Your task to perform on an android device: turn pop-ups on in chrome Image 0: 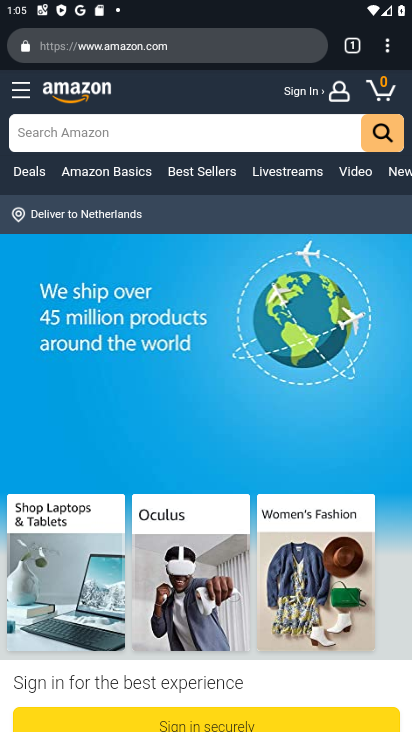
Step 0: click (386, 47)
Your task to perform on an android device: turn pop-ups on in chrome Image 1: 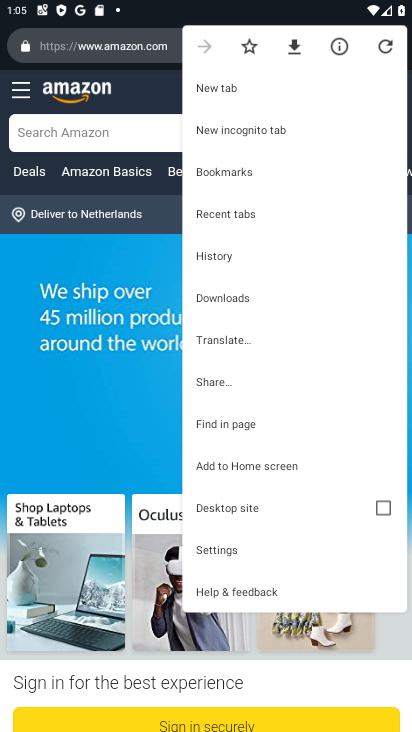
Step 1: click (213, 546)
Your task to perform on an android device: turn pop-ups on in chrome Image 2: 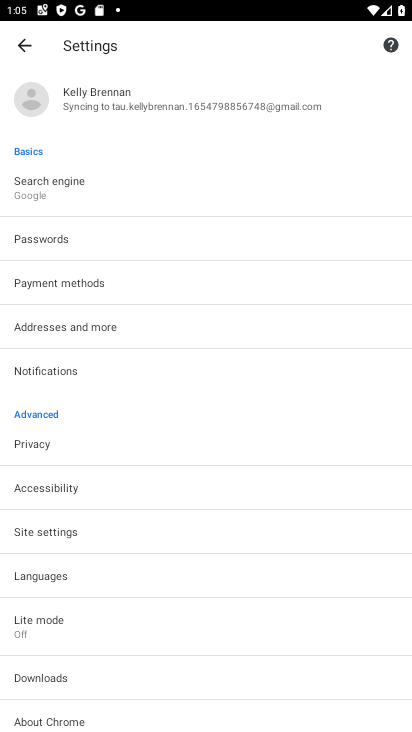
Step 2: click (58, 536)
Your task to perform on an android device: turn pop-ups on in chrome Image 3: 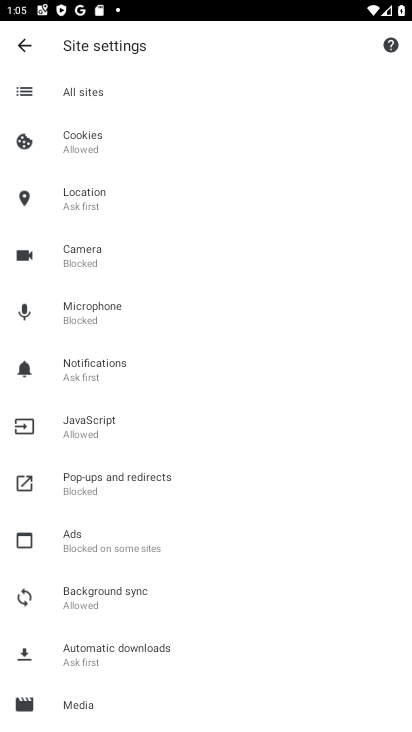
Step 3: click (90, 475)
Your task to perform on an android device: turn pop-ups on in chrome Image 4: 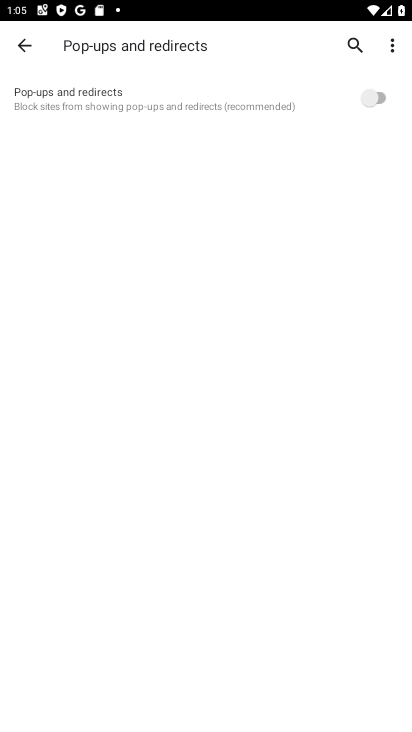
Step 4: click (383, 92)
Your task to perform on an android device: turn pop-ups on in chrome Image 5: 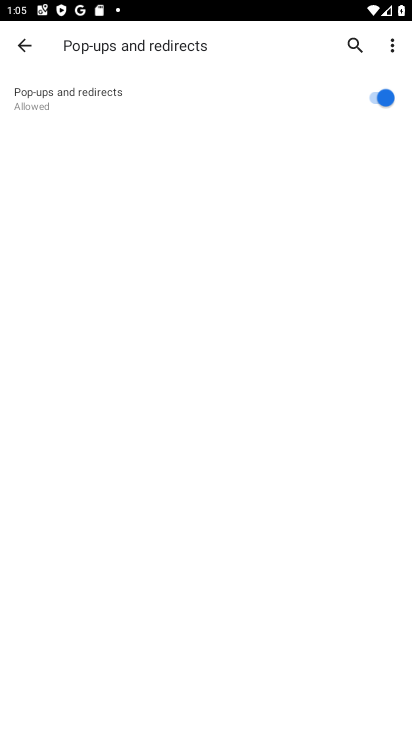
Step 5: task complete